Your task to perform on an android device: check battery use Image 0: 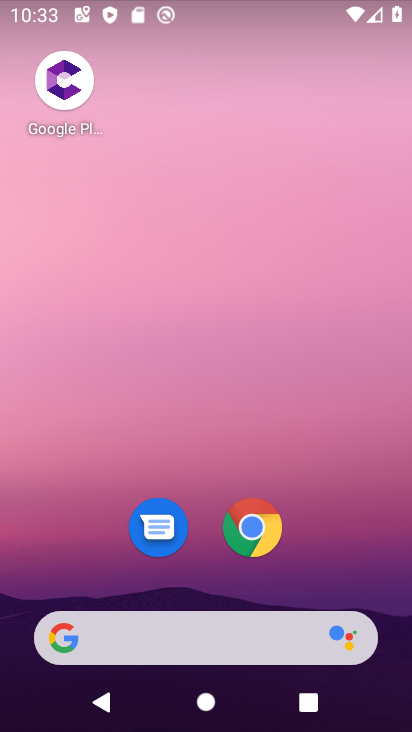
Step 0: drag from (355, 519) to (211, 54)
Your task to perform on an android device: check battery use Image 1: 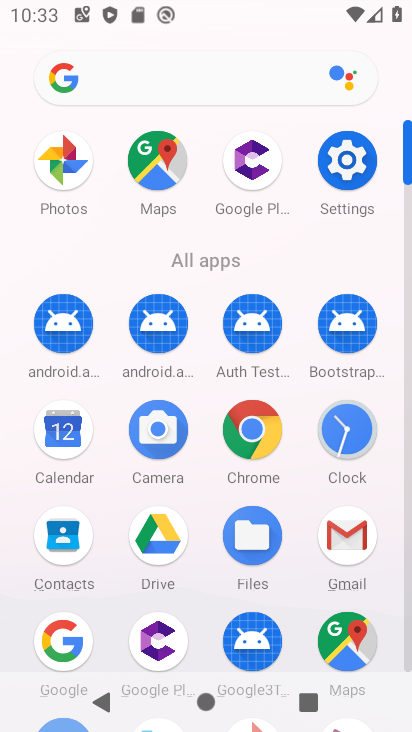
Step 1: click (348, 156)
Your task to perform on an android device: check battery use Image 2: 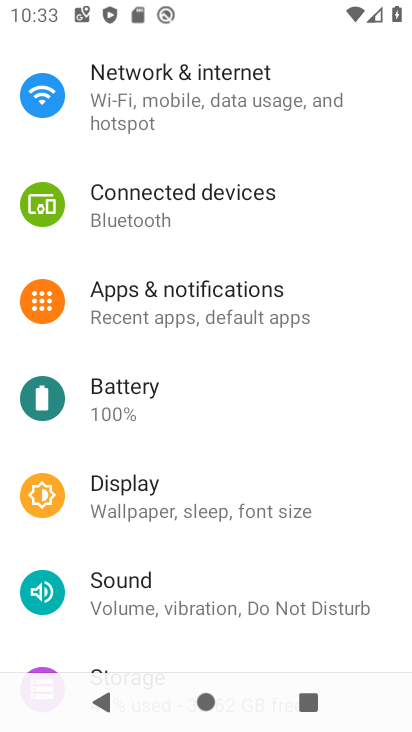
Step 2: click (204, 425)
Your task to perform on an android device: check battery use Image 3: 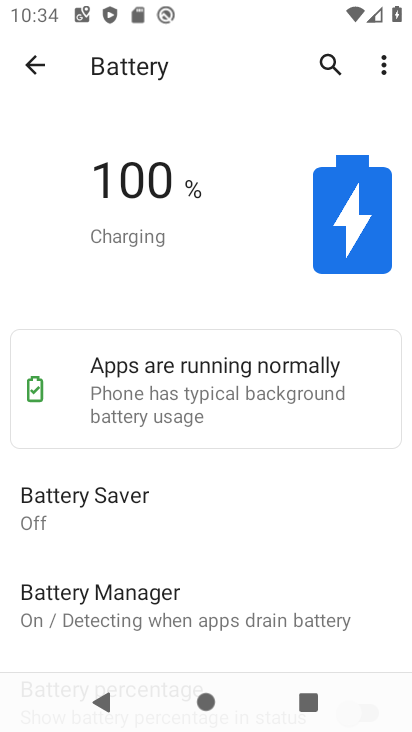
Step 3: click (384, 59)
Your task to perform on an android device: check battery use Image 4: 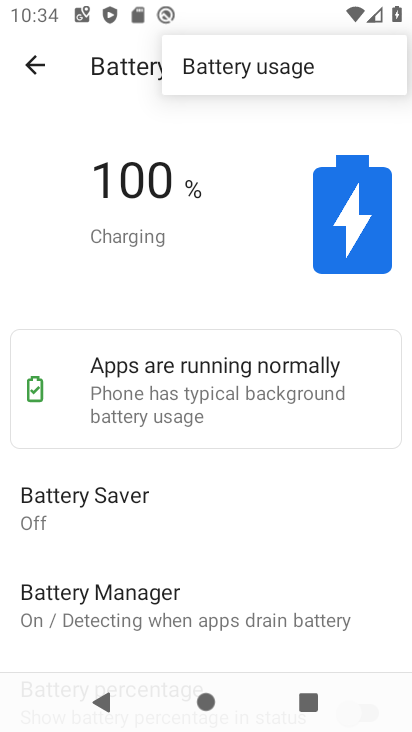
Step 4: click (290, 64)
Your task to perform on an android device: check battery use Image 5: 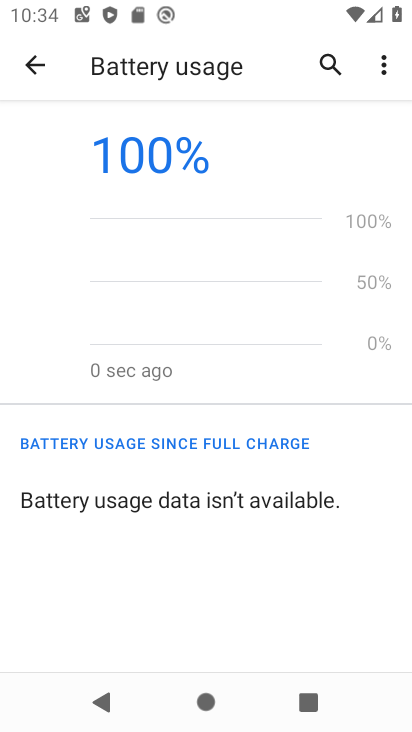
Step 5: task complete